Your task to perform on an android device: Open settings on Google Maps Image 0: 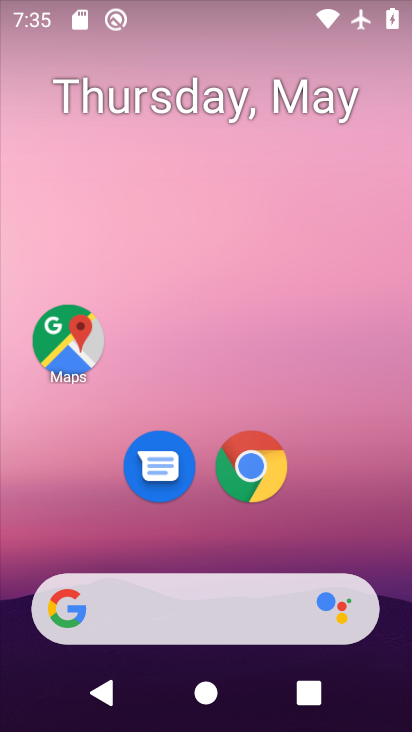
Step 0: click (79, 329)
Your task to perform on an android device: Open settings on Google Maps Image 1: 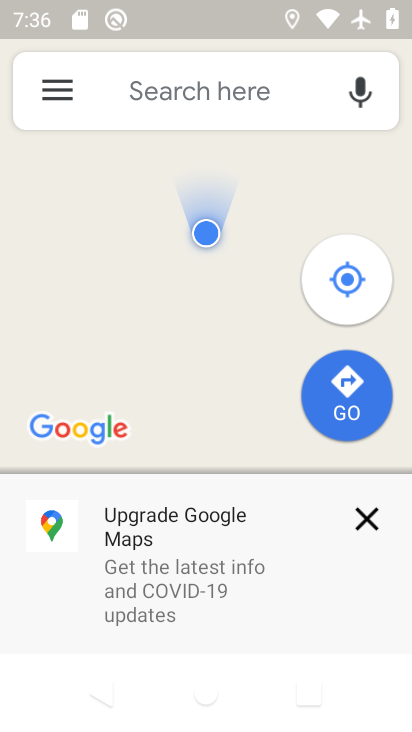
Step 1: click (79, 93)
Your task to perform on an android device: Open settings on Google Maps Image 2: 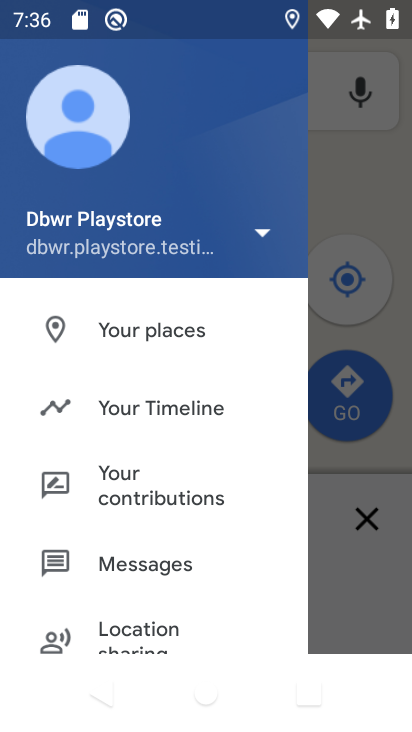
Step 2: drag from (152, 600) to (158, 412)
Your task to perform on an android device: Open settings on Google Maps Image 3: 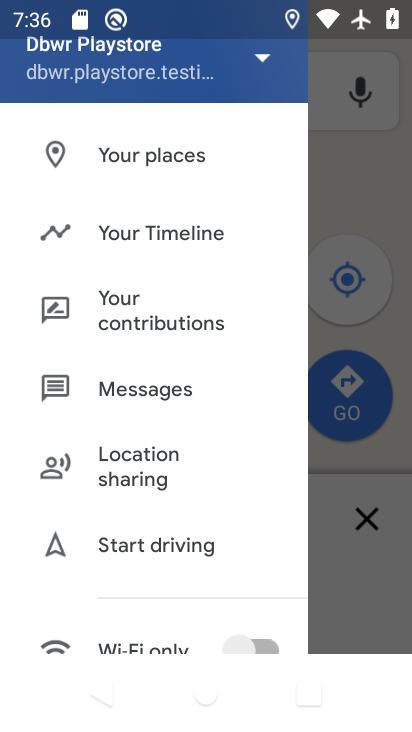
Step 3: drag from (144, 606) to (155, 305)
Your task to perform on an android device: Open settings on Google Maps Image 4: 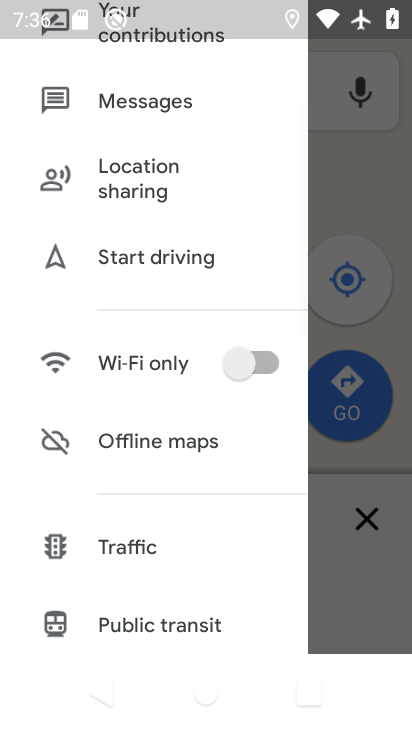
Step 4: drag from (150, 559) to (154, 282)
Your task to perform on an android device: Open settings on Google Maps Image 5: 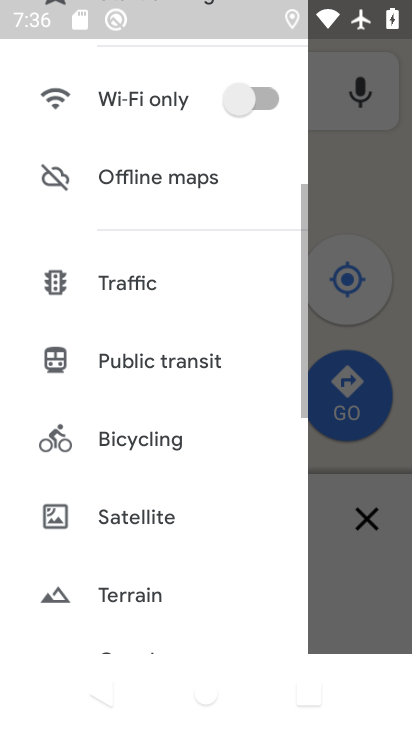
Step 5: drag from (179, 554) to (181, 187)
Your task to perform on an android device: Open settings on Google Maps Image 6: 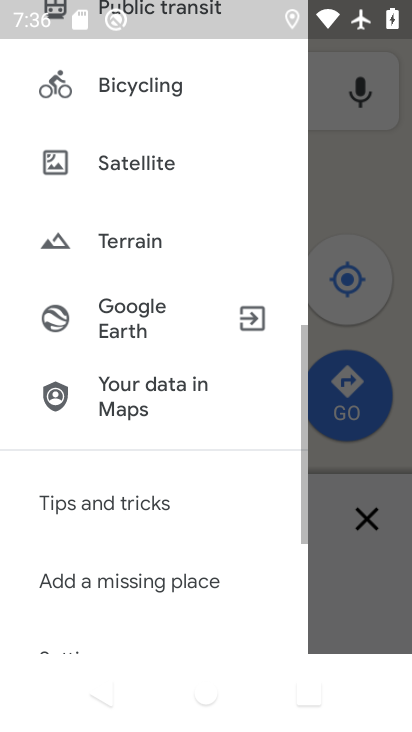
Step 6: drag from (177, 525) to (196, 220)
Your task to perform on an android device: Open settings on Google Maps Image 7: 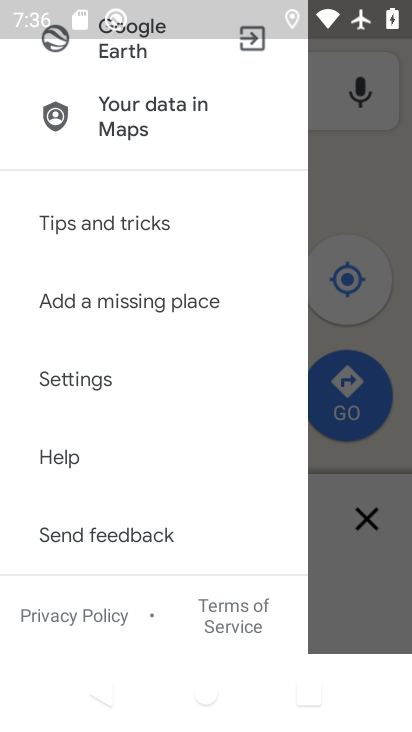
Step 7: click (156, 377)
Your task to perform on an android device: Open settings on Google Maps Image 8: 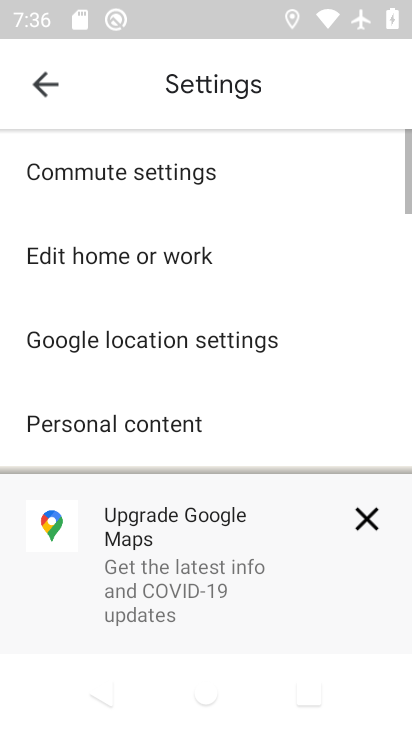
Step 8: task complete